Your task to perform on an android device: uninstall "Chime – Mobile Banking" Image 0: 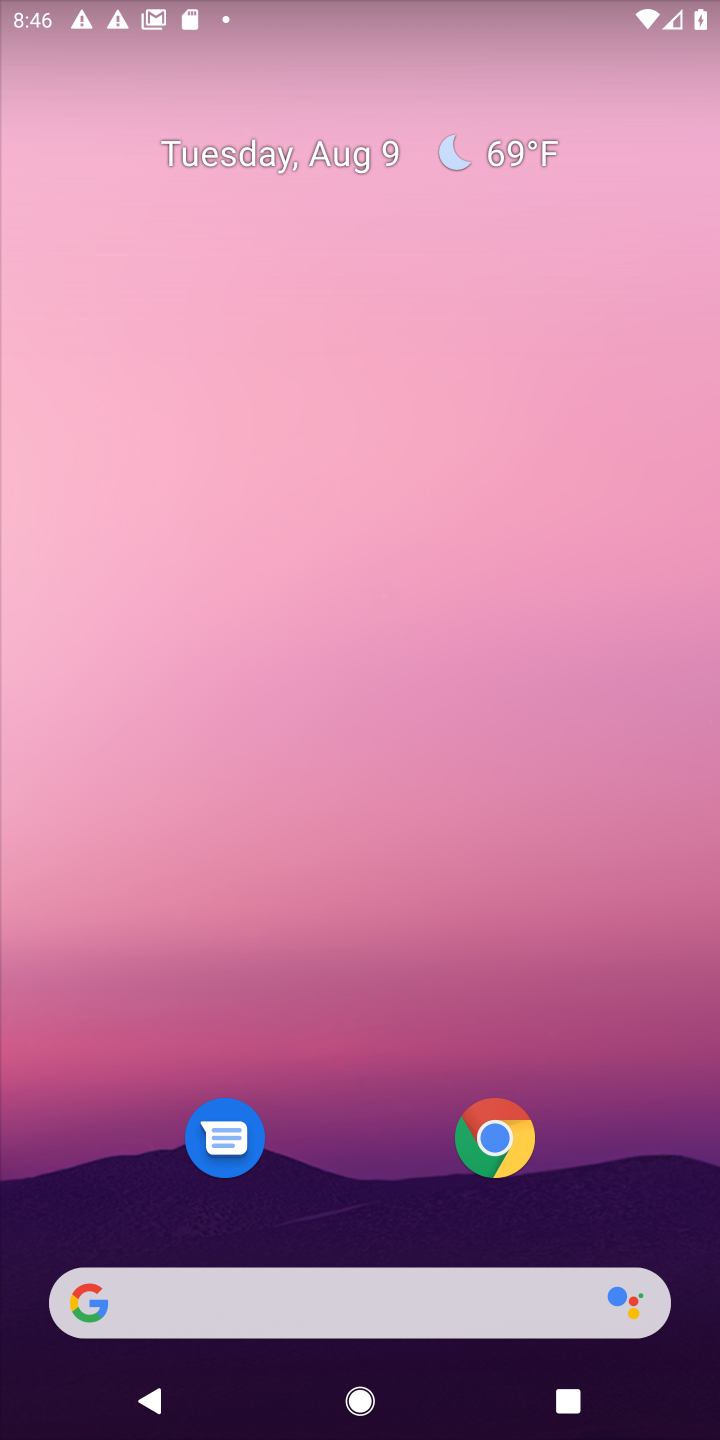
Step 0: drag from (378, 1240) to (457, 56)
Your task to perform on an android device: uninstall "Chime – Mobile Banking" Image 1: 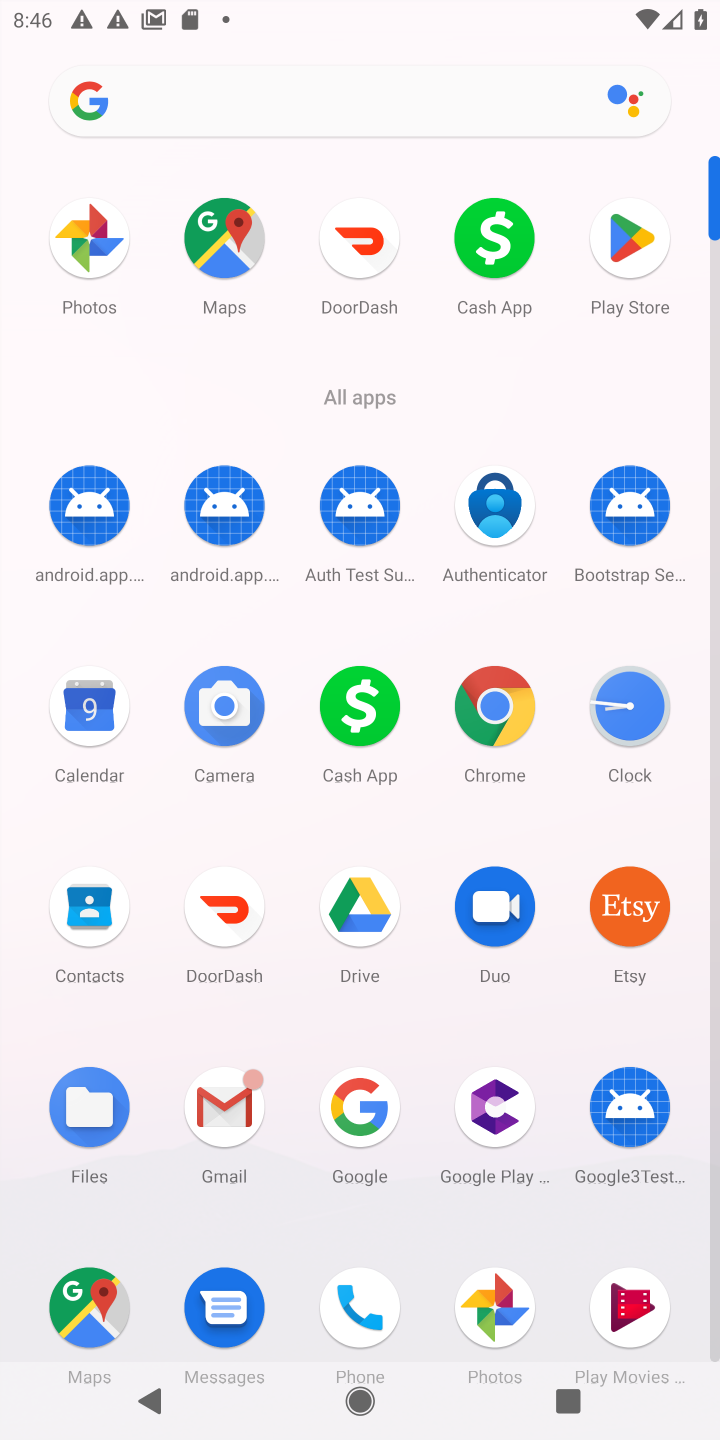
Step 1: click (602, 212)
Your task to perform on an android device: uninstall "Chime – Mobile Banking" Image 2: 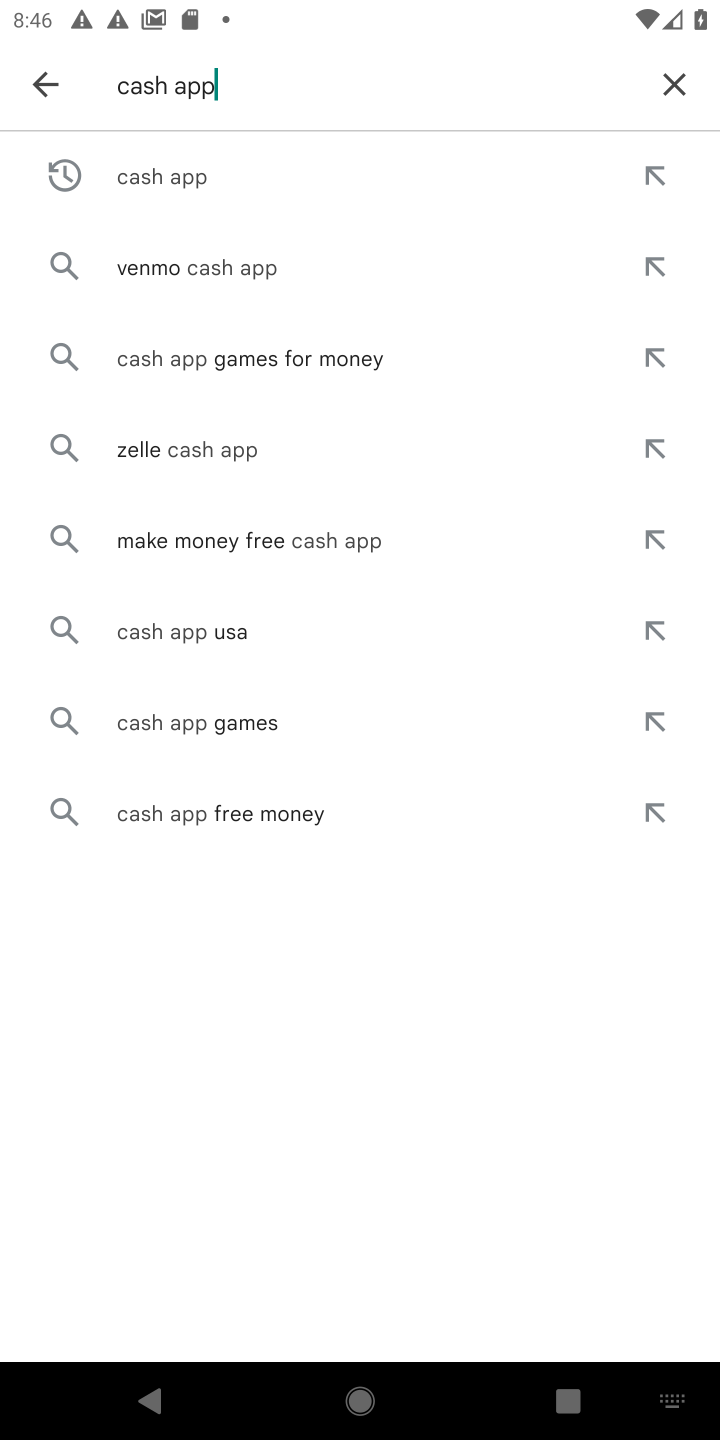
Step 2: click (671, 83)
Your task to perform on an android device: uninstall "Chime – Mobile Banking" Image 3: 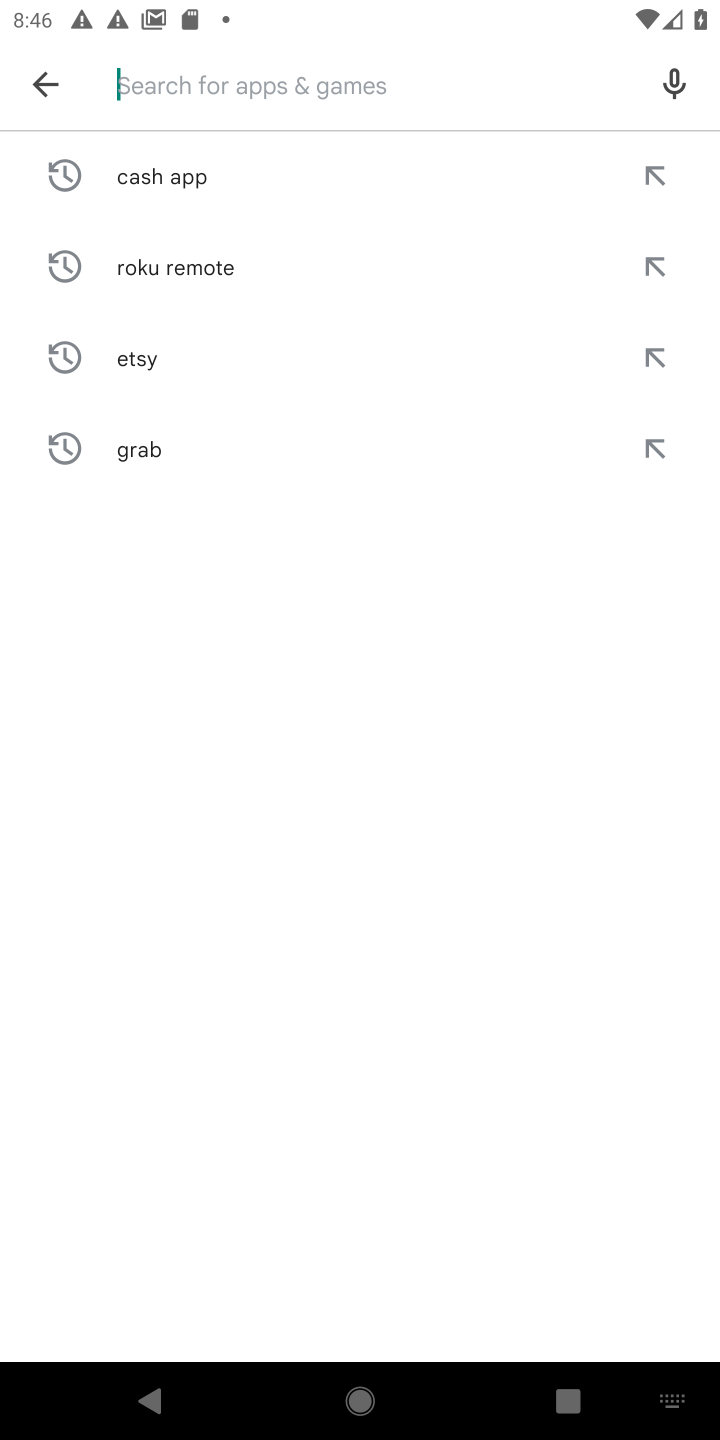
Step 3: type "chime"
Your task to perform on an android device: uninstall "Chime – Mobile Banking" Image 4: 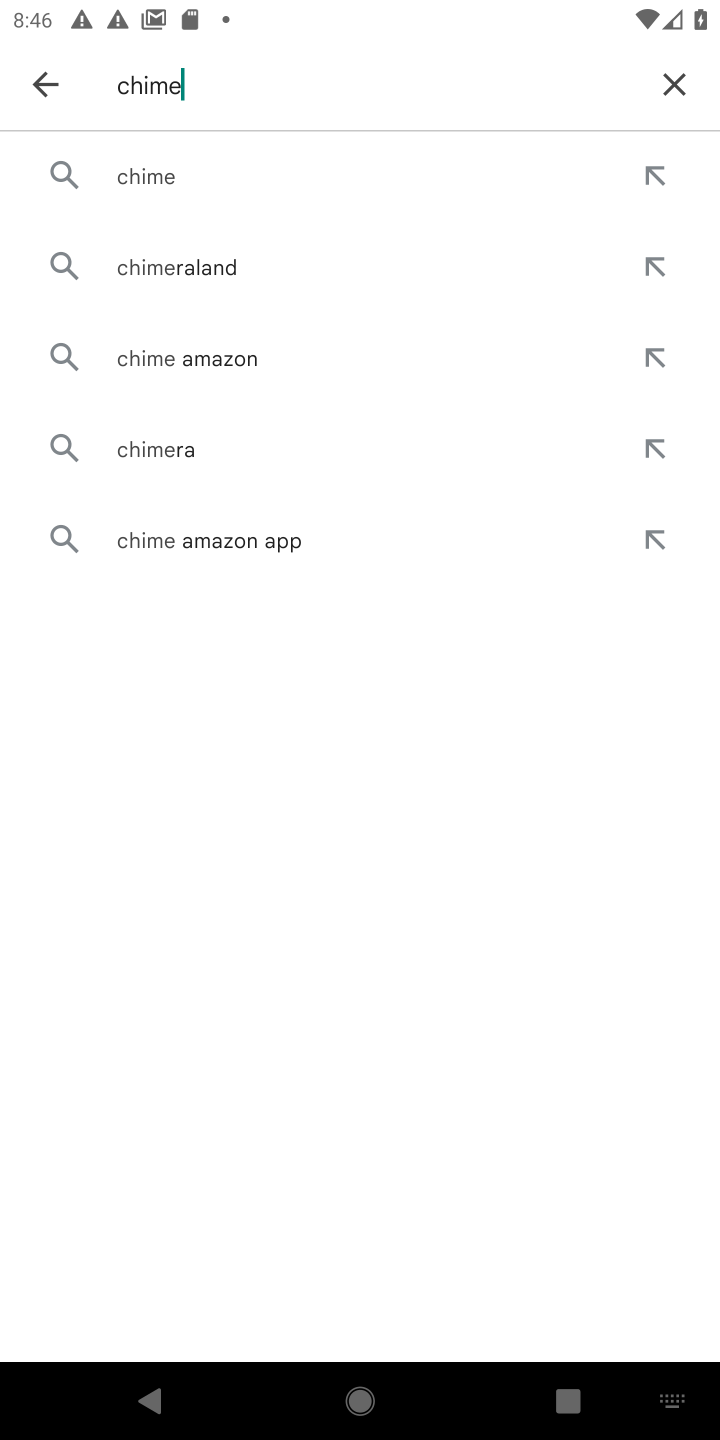
Step 4: click (184, 159)
Your task to perform on an android device: uninstall "Chime – Mobile Banking" Image 5: 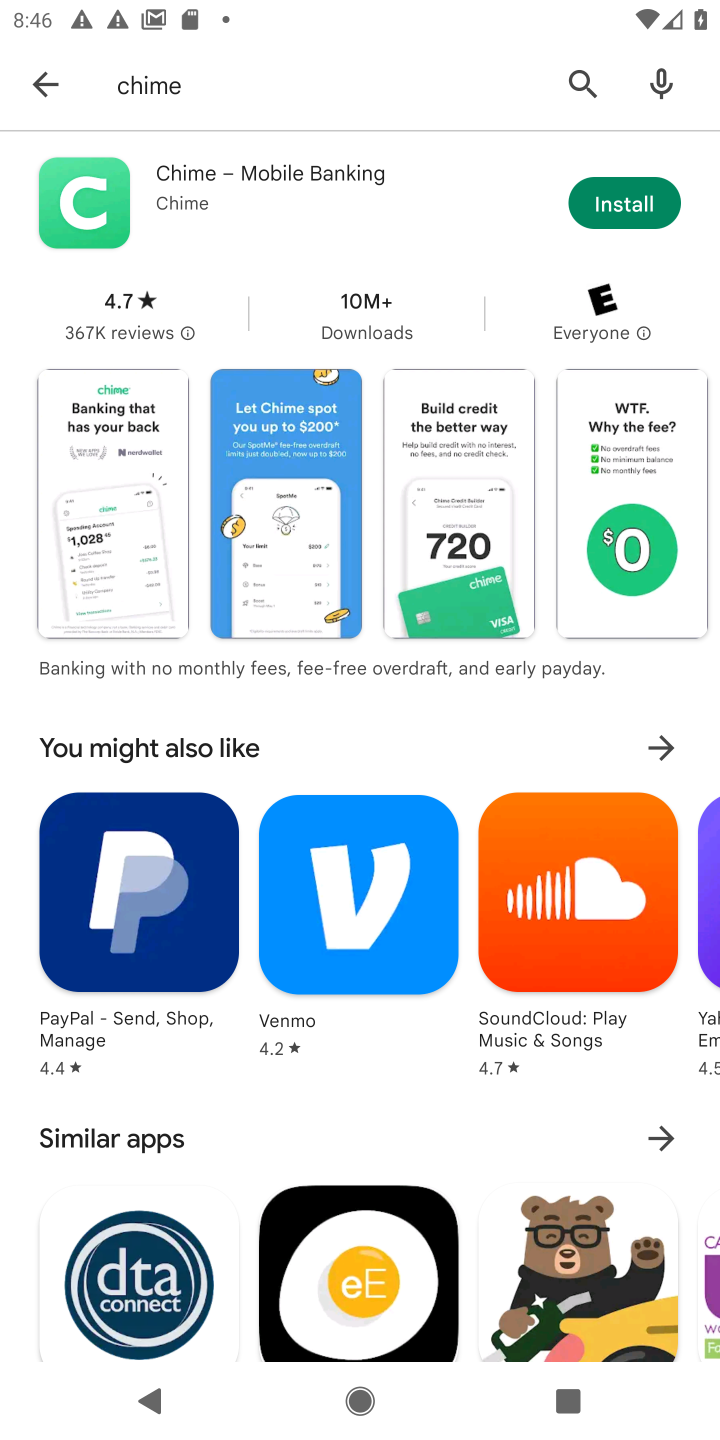
Step 5: click (642, 196)
Your task to perform on an android device: uninstall "Chime – Mobile Banking" Image 6: 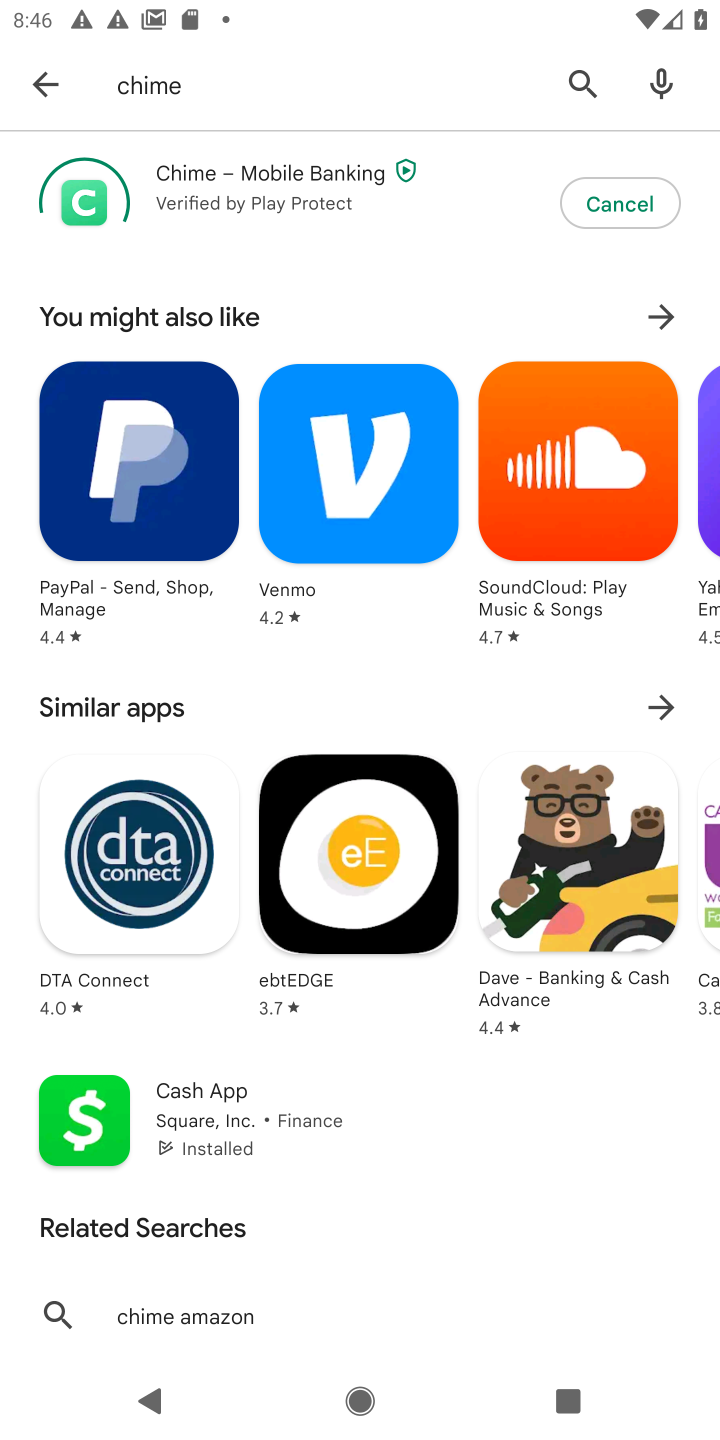
Step 6: task complete